Your task to perform on an android device: remove spam from my inbox in the gmail app Image 0: 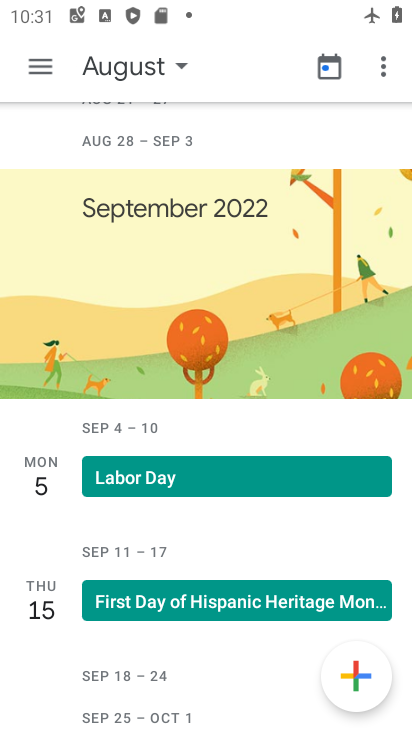
Step 0: press home button
Your task to perform on an android device: remove spam from my inbox in the gmail app Image 1: 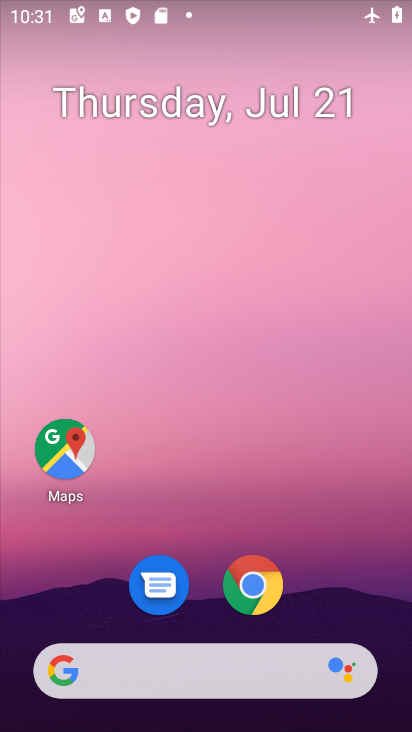
Step 1: drag from (329, 527) to (360, 12)
Your task to perform on an android device: remove spam from my inbox in the gmail app Image 2: 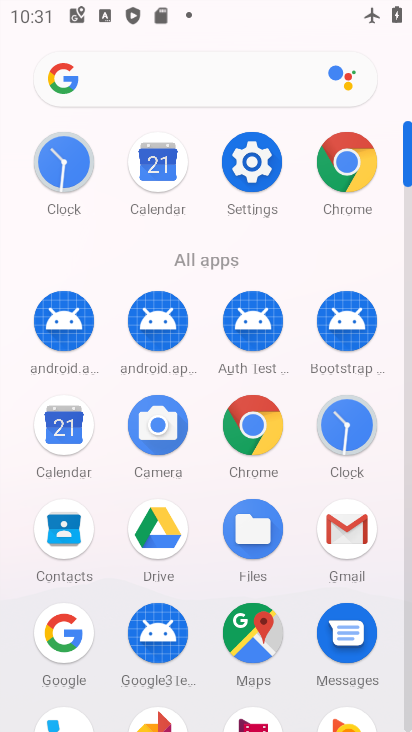
Step 2: click (349, 537)
Your task to perform on an android device: remove spam from my inbox in the gmail app Image 3: 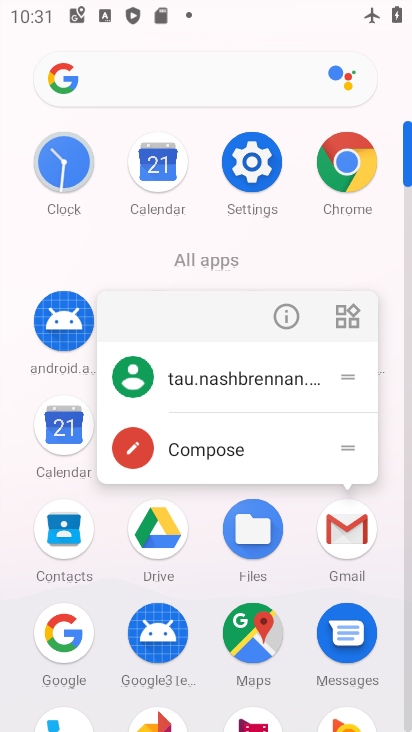
Step 3: click (346, 526)
Your task to perform on an android device: remove spam from my inbox in the gmail app Image 4: 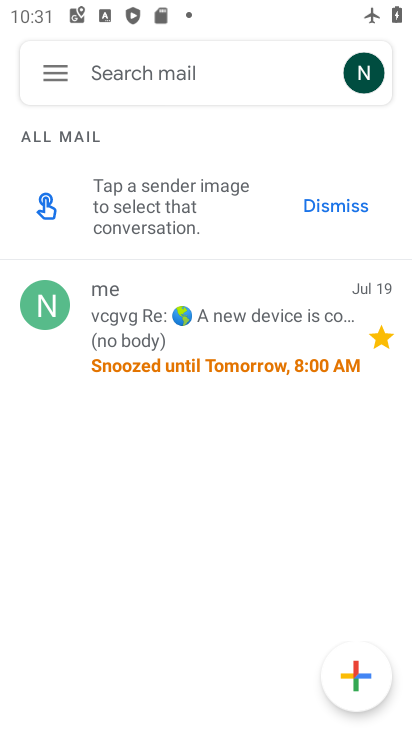
Step 4: click (56, 72)
Your task to perform on an android device: remove spam from my inbox in the gmail app Image 5: 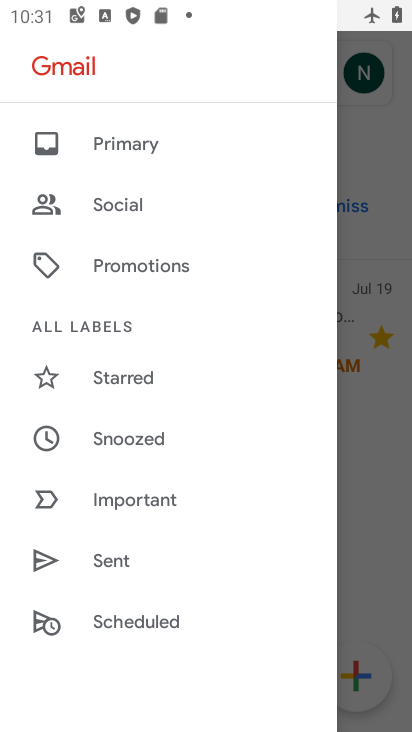
Step 5: drag from (168, 552) to (215, 51)
Your task to perform on an android device: remove spam from my inbox in the gmail app Image 6: 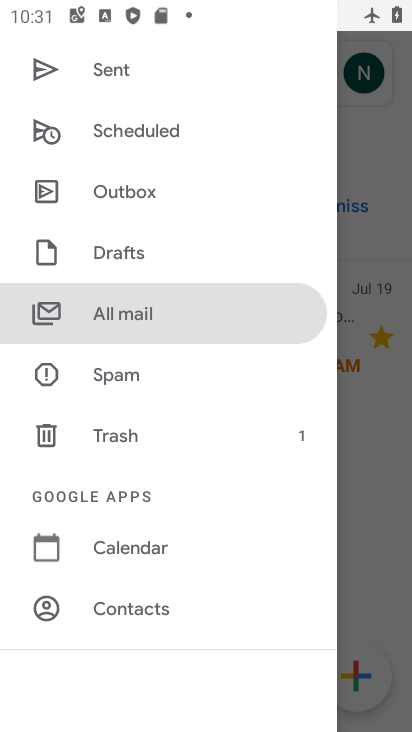
Step 6: click (139, 367)
Your task to perform on an android device: remove spam from my inbox in the gmail app Image 7: 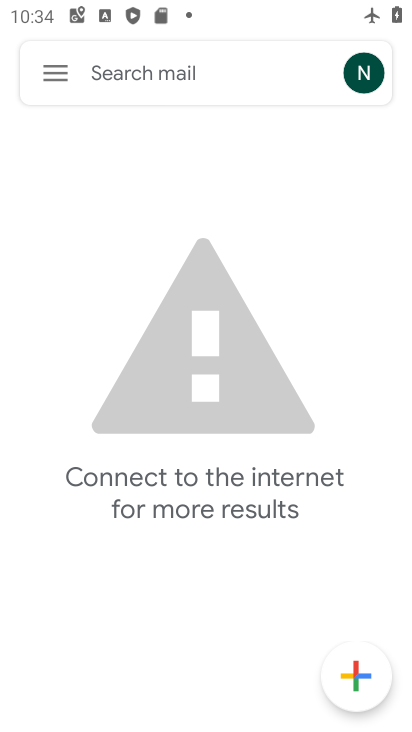
Step 7: click (54, 70)
Your task to perform on an android device: remove spam from my inbox in the gmail app Image 8: 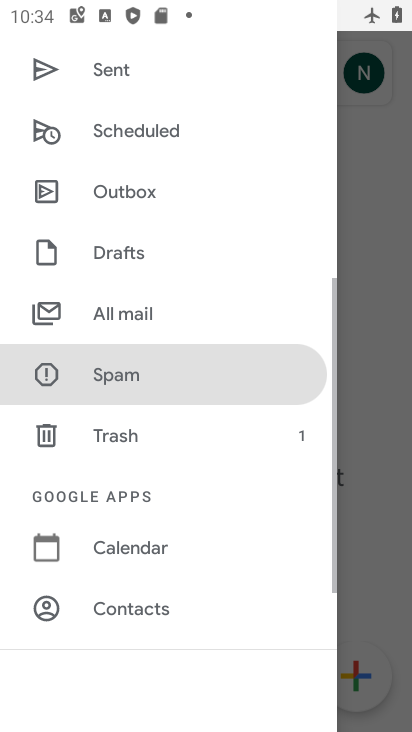
Step 8: drag from (184, 203) to (204, 617)
Your task to perform on an android device: remove spam from my inbox in the gmail app Image 9: 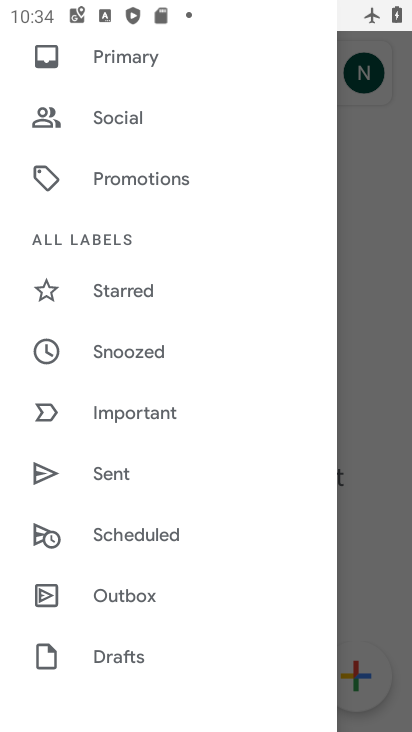
Step 9: drag from (199, 131) to (219, 504)
Your task to perform on an android device: remove spam from my inbox in the gmail app Image 10: 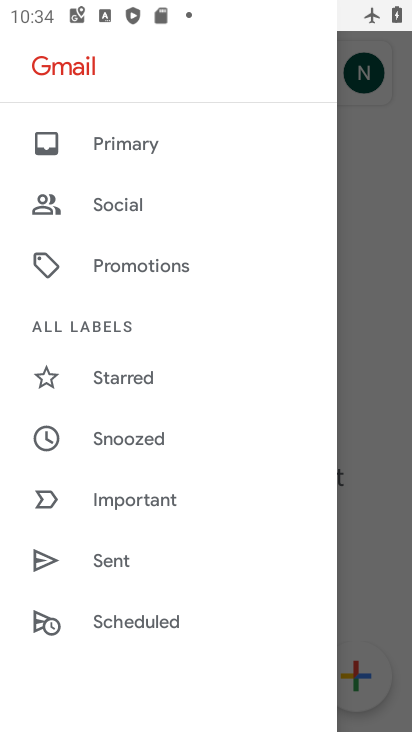
Step 10: click (132, 143)
Your task to perform on an android device: remove spam from my inbox in the gmail app Image 11: 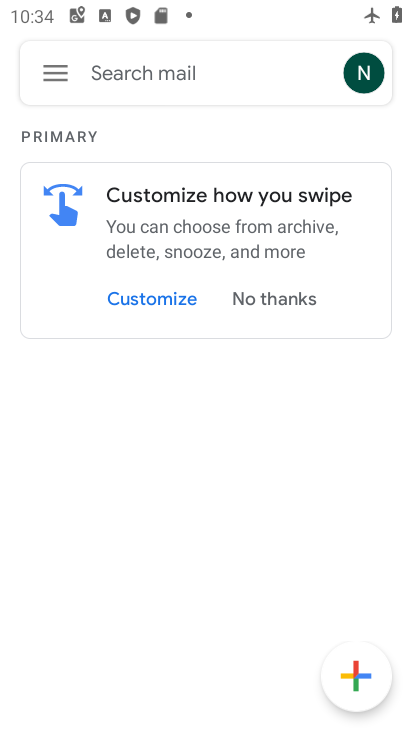
Step 11: click (264, 299)
Your task to perform on an android device: remove spam from my inbox in the gmail app Image 12: 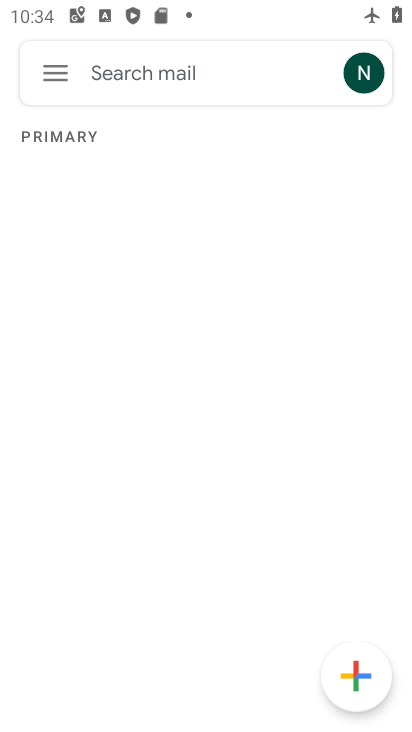
Step 12: task complete